Your task to perform on an android device: Search for "acer nitro" on amazon, select the first entry, add it to the cart, then select checkout. Image 0: 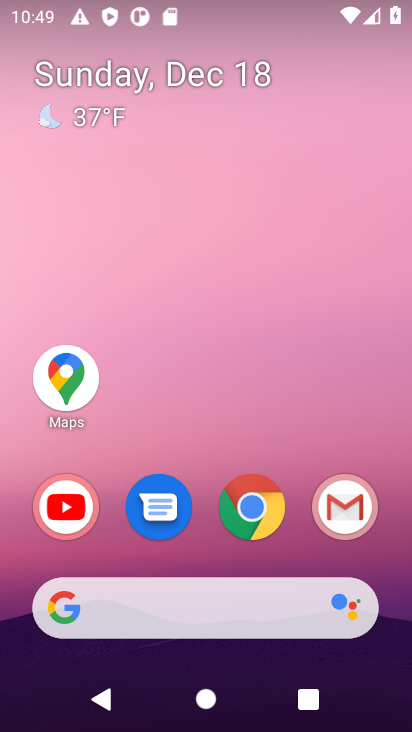
Step 0: click (256, 508)
Your task to perform on an android device: Search for "acer nitro" on amazon, select the first entry, add it to the cart, then select checkout. Image 1: 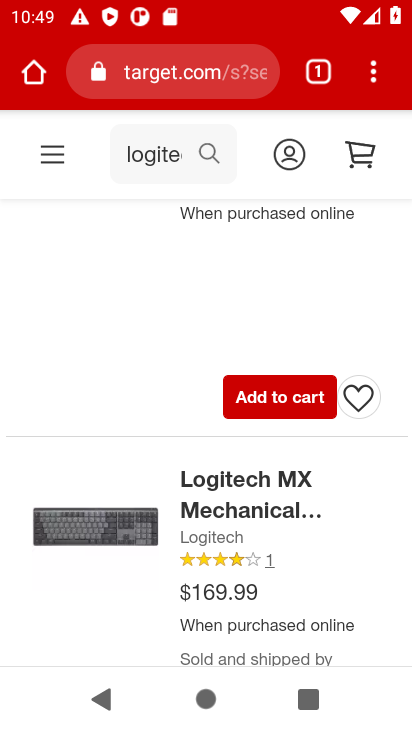
Step 1: click (160, 83)
Your task to perform on an android device: Search for "acer nitro" on amazon, select the first entry, add it to the cart, then select checkout. Image 2: 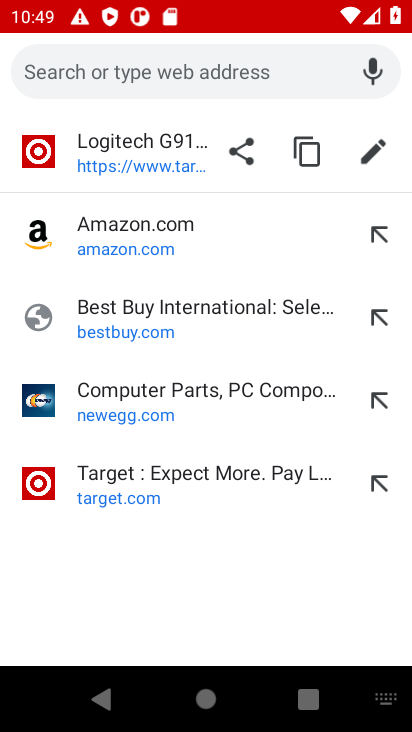
Step 2: click (107, 251)
Your task to perform on an android device: Search for "acer nitro" on amazon, select the first entry, add it to the cart, then select checkout. Image 3: 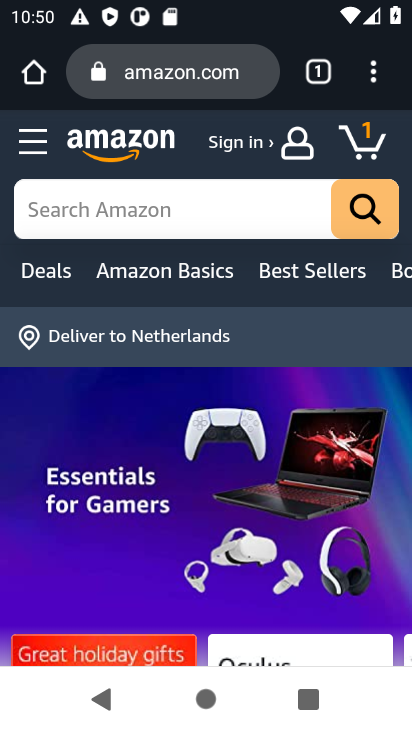
Step 3: click (70, 212)
Your task to perform on an android device: Search for "acer nitro" on amazon, select the first entry, add it to the cart, then select checkout. Image 4: 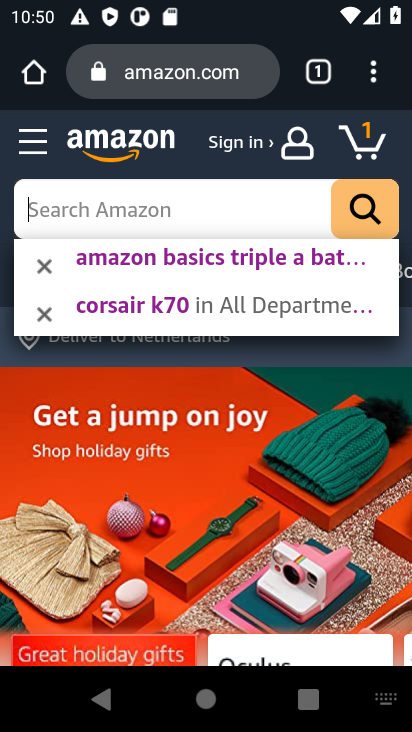
Step 4: type "acer nitro"
Your task to perform on an android device: Search for "acer nitro" on amazon, select the first entry, add it to the cart, then select checkout. Image 5: 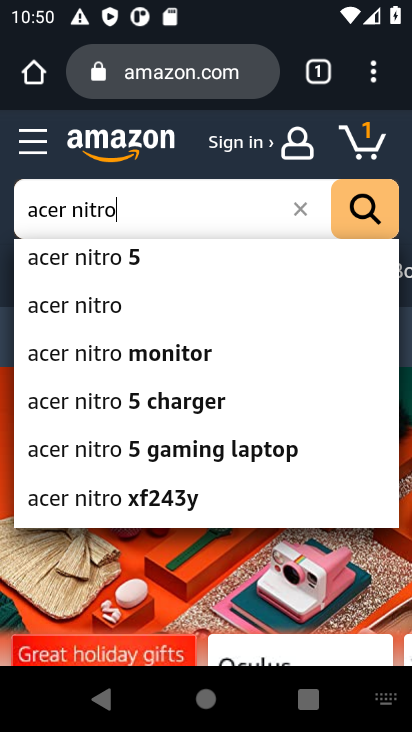
Step 5: click (98, 311)
Your task to perform on an android device: Search for "acer nitro" on amazon, select the first entry, add it to the cart, then select checkout. Image 6: 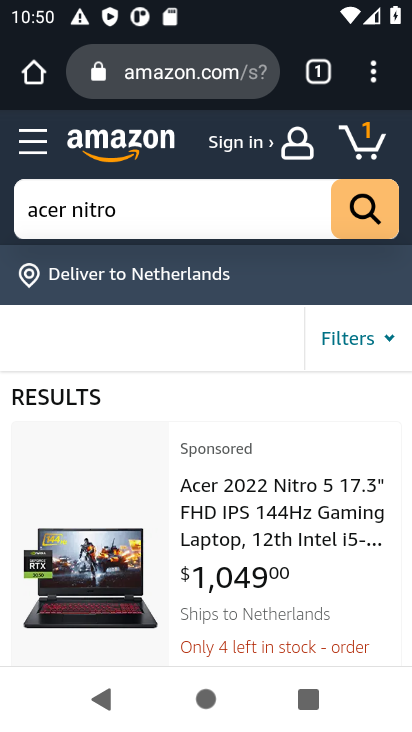
Step 6: drag from (116, 512) to (130, 309)
Your task to perform on an android device: Search for "acer nitro" on amazon, select the first entry, add it to the cart, then select checkout. Image 7: 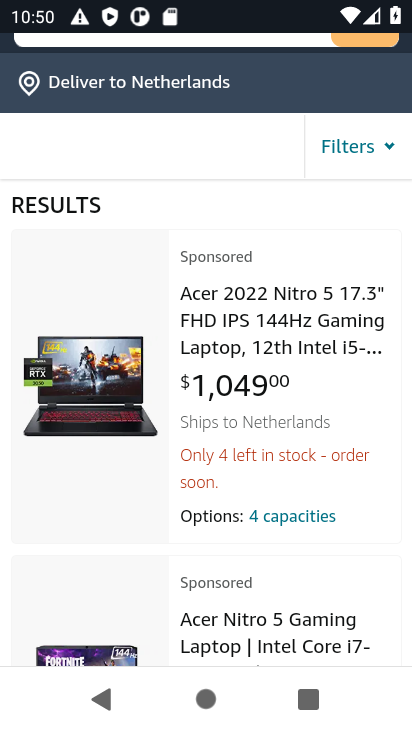
Step 7: click (274, 313)
Your task to perform on an android device: Search for "acer nitro" on amazon, select the first entry, add it to the cart, then select checkout. Image 8: 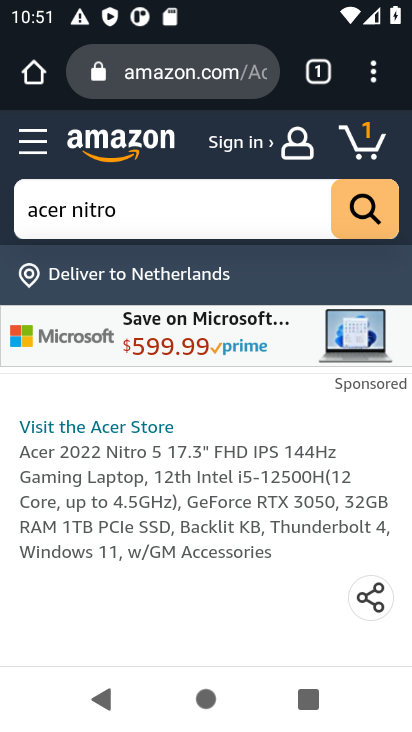
Step 8: drag from (151, 435) to (168, 210)
Your task to perform on an android device: Search for "acer nitro" on amazon, select the first entry, add it to the cart, then select checkout. Image 9: 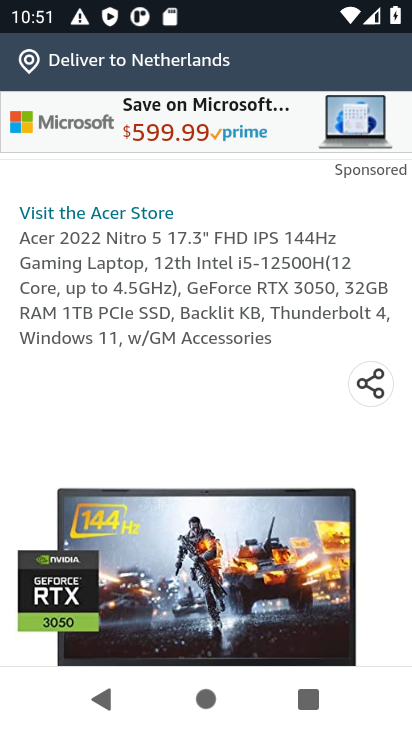
Step 9: drag from (184, 451) to (194, 144)
Your task to perform on an android device: Search for "acer nitro" on amazon, select the first entry, add it to the cart, then select checkout. Image 10: 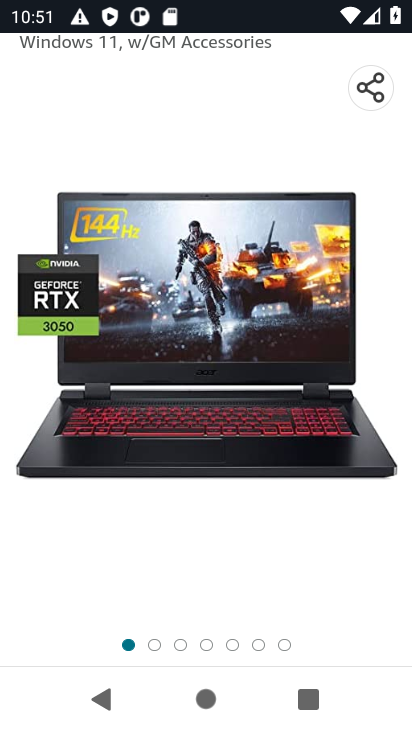
Step 10: drag from (183, 504) to (203, 160)
Your task to perform on an android device: Search for "acer nitro" on amazon, select the first entry, add it to the cart, then select checkout. Image 11: 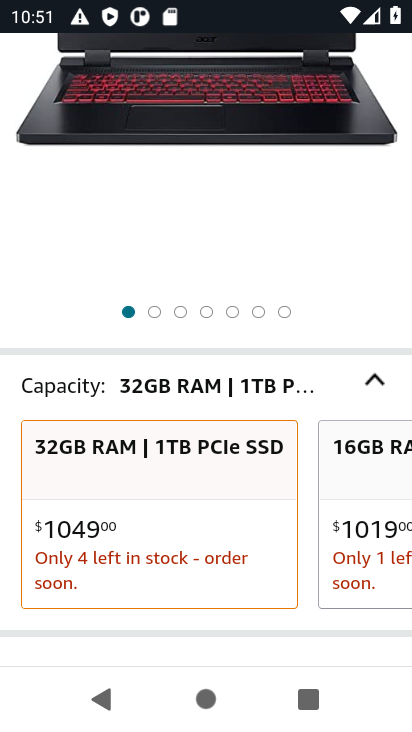
Step 11: drag from (203, 492) to (193, 156)
Your task to perform on an android device: Search for "acer nitro" on amazon, select the first entry, add it to the cart, then select checkout. Image 12: 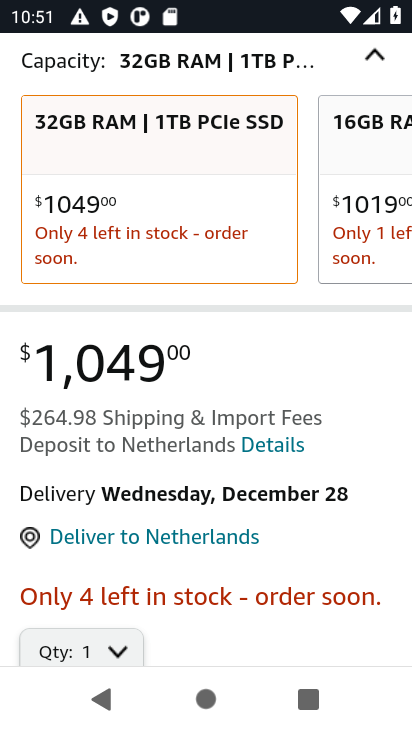
Step 12: drag from (191, 520) to (196, 157)
Your task to perform on an android device: Search for "acer nitro" on amazon, select the first entry, add it to the cart, then select checkout. Image 13: 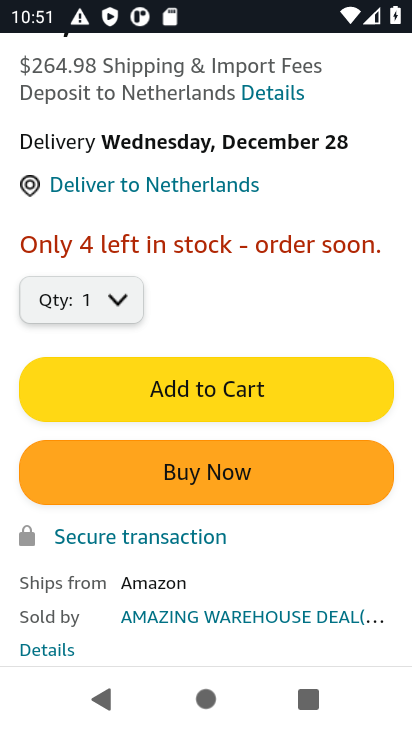
Step 13: click (195, 385)
Your task to perform on an android device: Search for "acer nitro" on amazon, select the first entry, add it to the cart, then select checkout. Image 14: 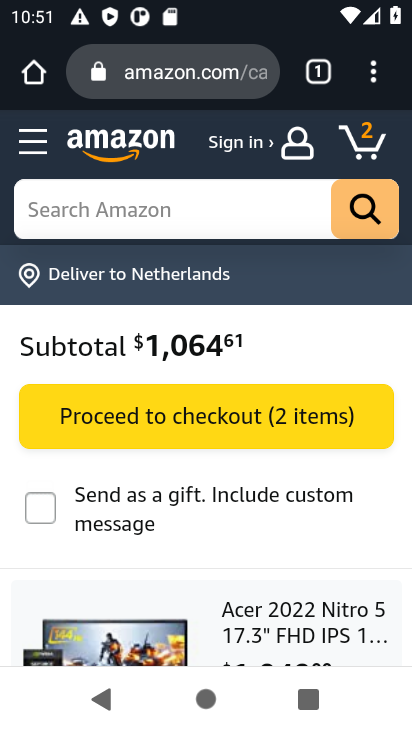
Step 14: click (179, 418)
Your task to perform on an android device: Search for "acer nitro" on amazon, select the first entry, add it to the cart, then select checkout. Image 15: 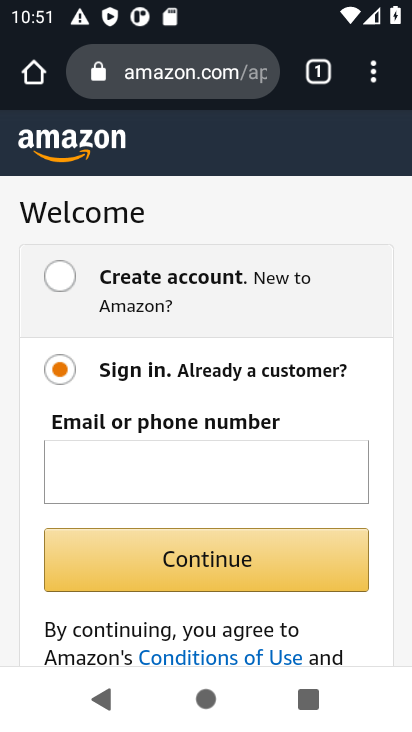
Step 15: task complete